Your task to perform on an android device: Open eBay Image 0: 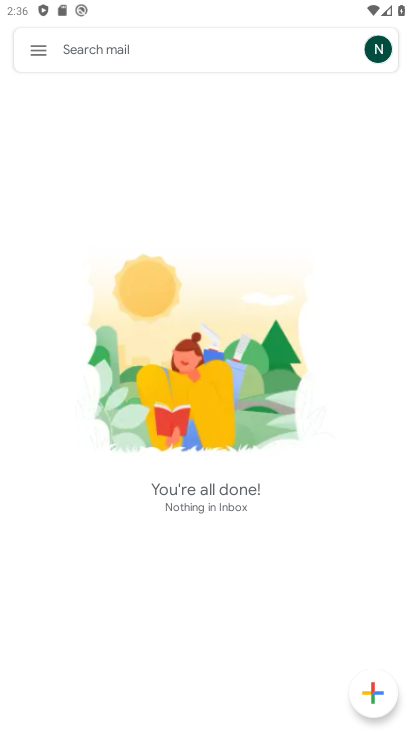
Step 0: press home button
Your task to perform on an android device: Open eBay Image 1: 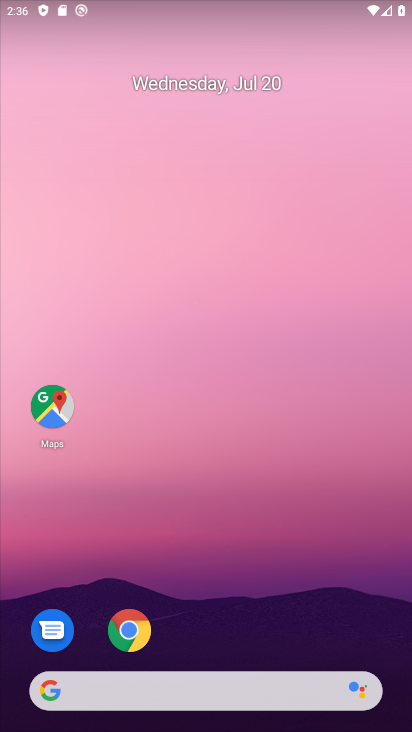
Step 1: click (124, 624)
Your task to perform on an android device: Open eBay Image 2: 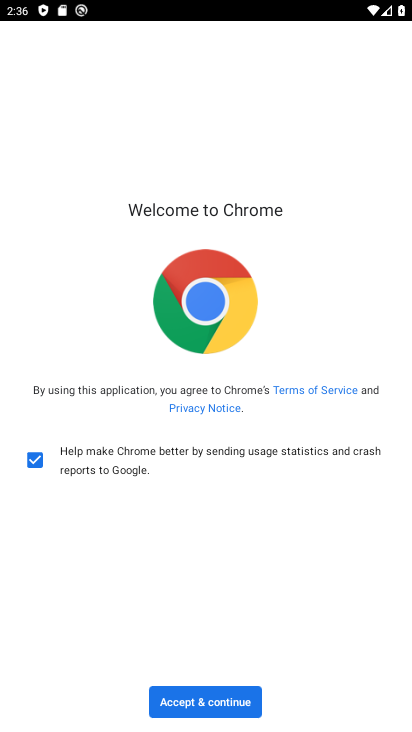
Step 2: click (189, 691)
Your task to perform on an android device: Open eBay Image 3: 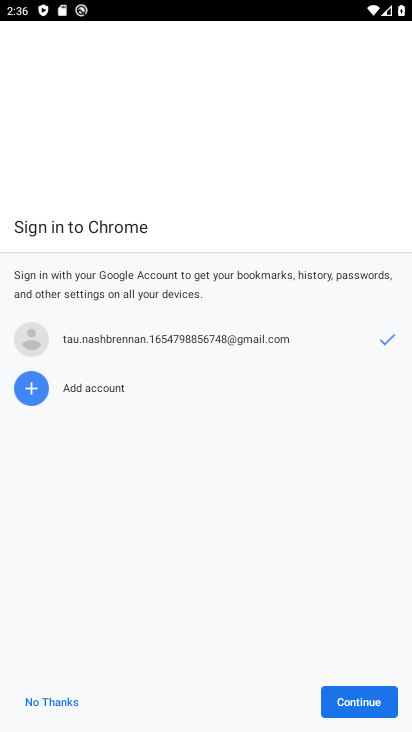
Step 3: click (381, 702)
Your task to perform on an android device: Open eBay Image 4: 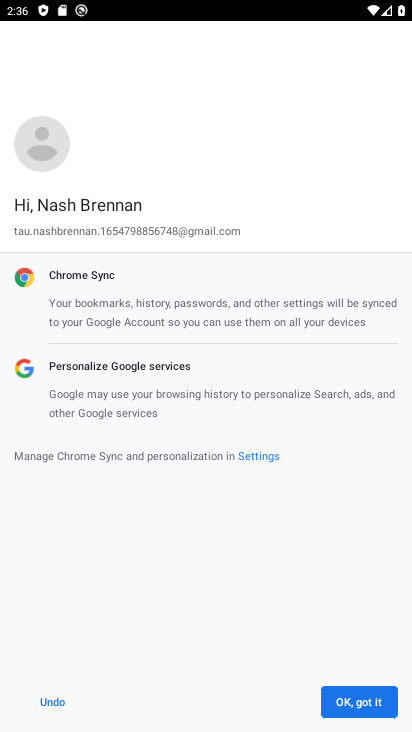
Step 4: click (381, 702)
Your task to perform on an android device: Open eBay Image 5: 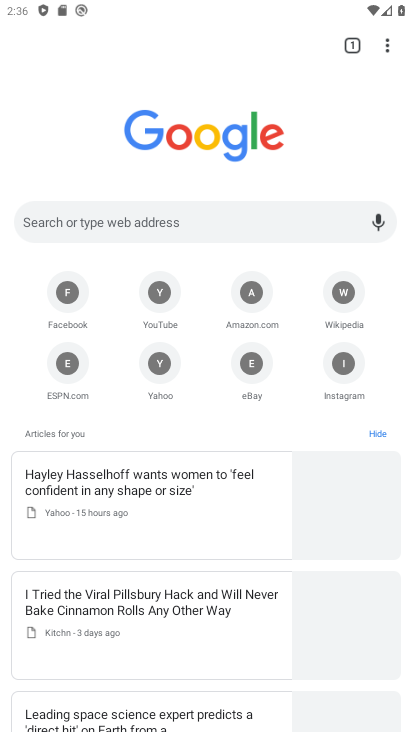
Step 5: click (253, 374)
Your task to perform on an android device: Open eBay Image 6: 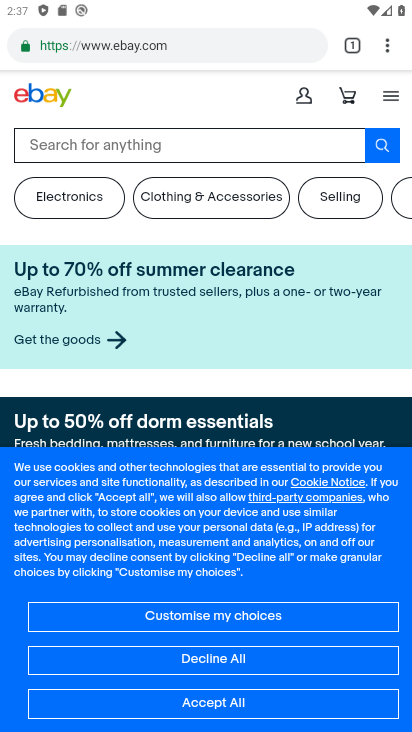
Step 6: click (253, 374)
Your task to perform on an android device: Open eBay Image 7: 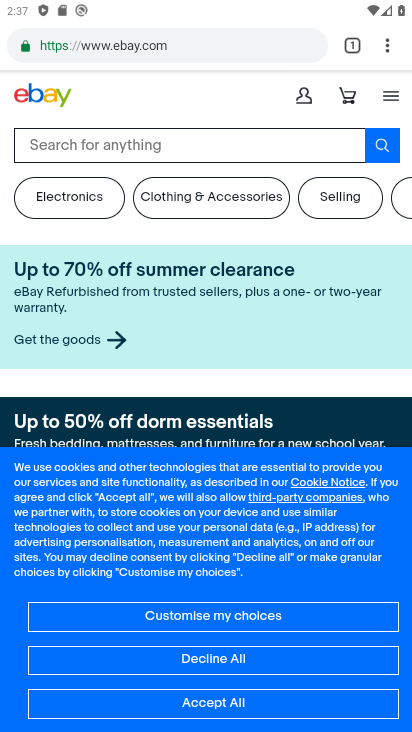
Step 7: task complete